Your task to perform on an android device: When is my next appointment? Image 0: 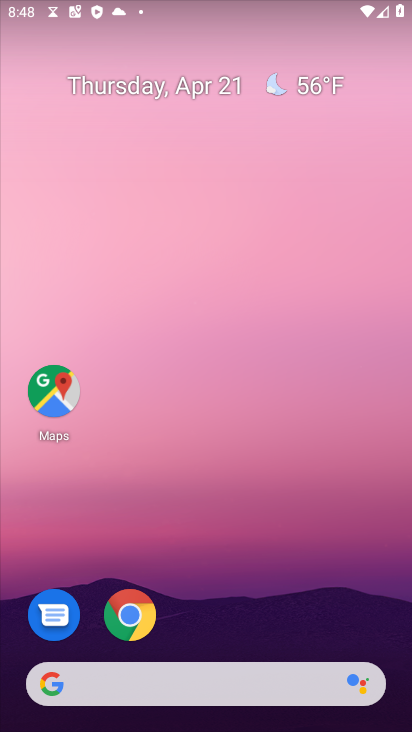
Step 0: drag from (314, 558) to (264, 237)
Your task to perform on an android device: When is my next appointment? Image 1: 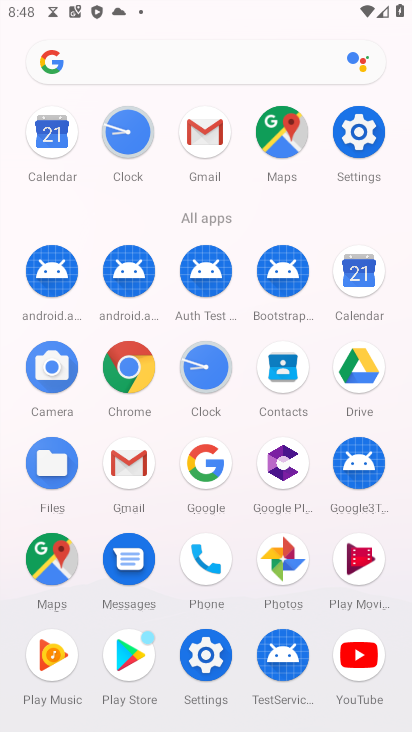
Step 1: drag from (308, 545) to (317, 272)
Your task to perform on an android device: When is my next appointment? Image 2: 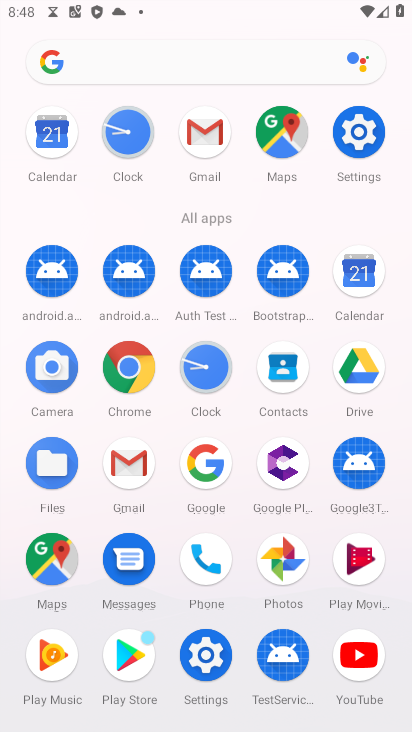
Step 2: click (350, 279)
Your task to perform on an android device: When is my next appointment? Image 3: 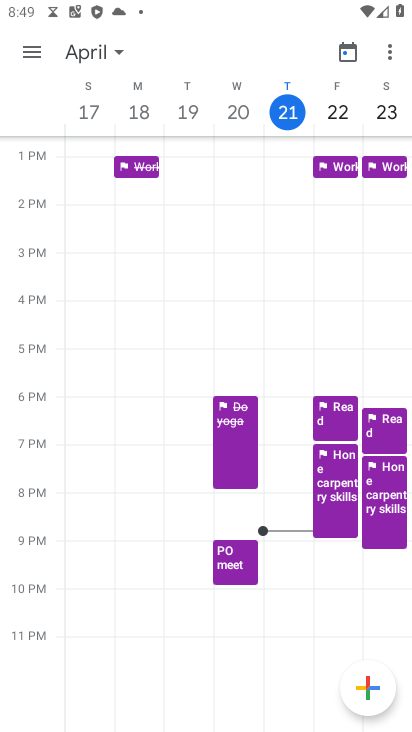
Step 3: task complete